Your task to perform on an android device: Search for seafood restaurants on Google Maps Image 0: 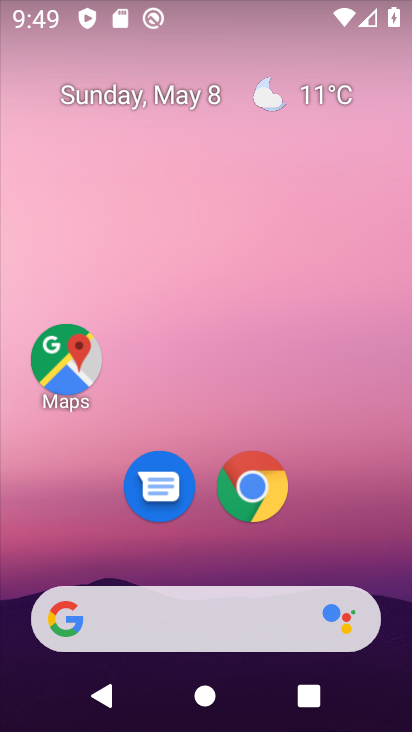
Step 0: drag from (313, 551) to (362, 19)
Your task to perform on an android device: Search for seafood restaurants on Google Maps Image 1: 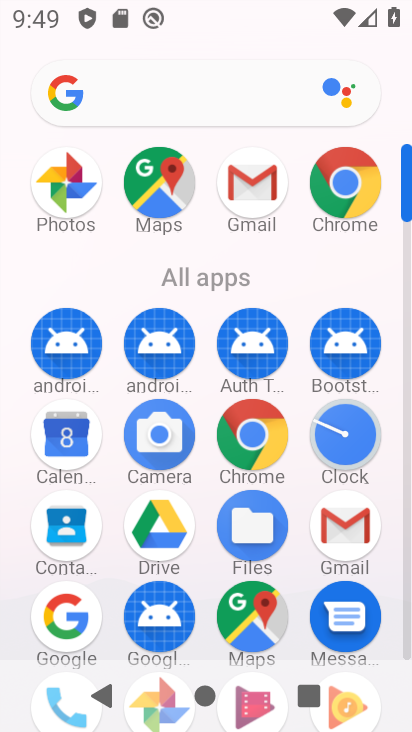
Step 1: click (148, 192)
Your task to perform on an android device: Search for seafood restaurants on Google Maps Image 2: 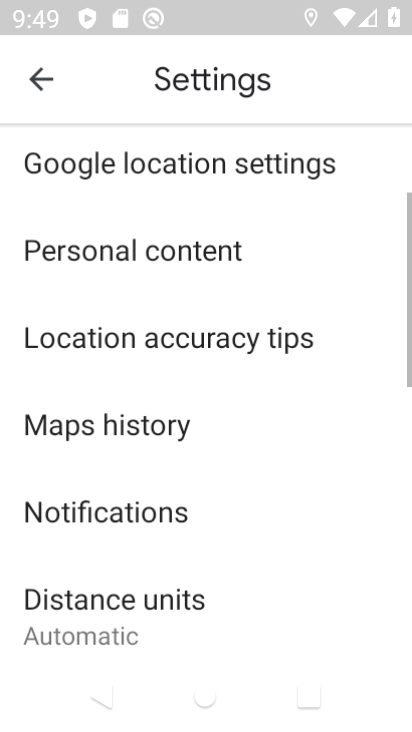
Step 2: click (49, 85)
Your task to perform on an android device: Search for seafood restaurants on Google Maps Image 3: 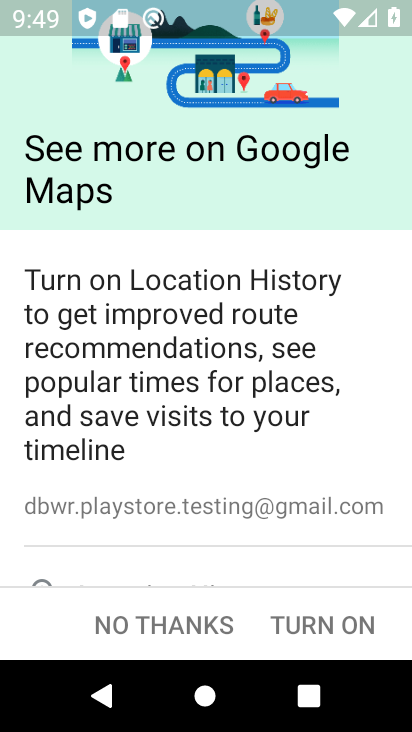
Step 3: drag from (235, 547) to (282, 271)
Your task to perform on an android device: Search for seafood restaurants on Google Maps Image 4: 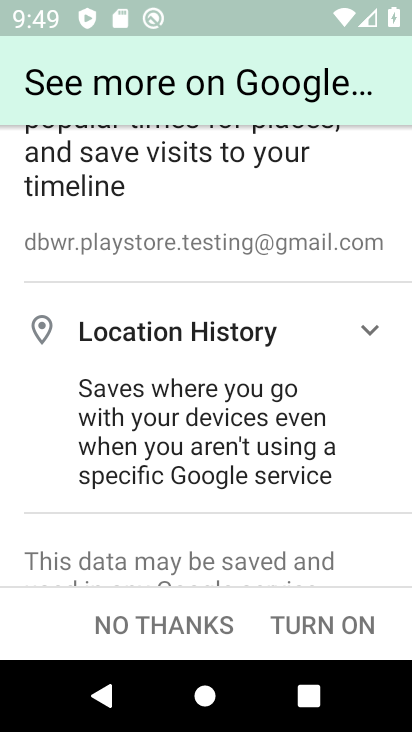
Step 4: click (139, 629)
Your task to perform on an android device: Search for seafood restaurants on Google Maps Image 5: 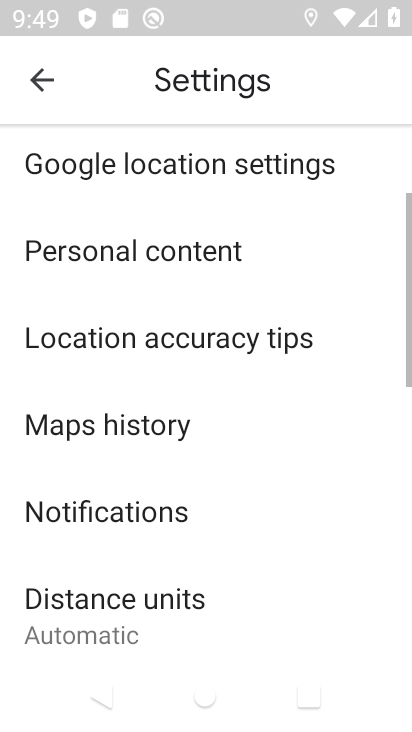
Step 5: click (57, 87)
Your task to perform on an android device: Search for seafood restaurants on Google Maps Image 6: 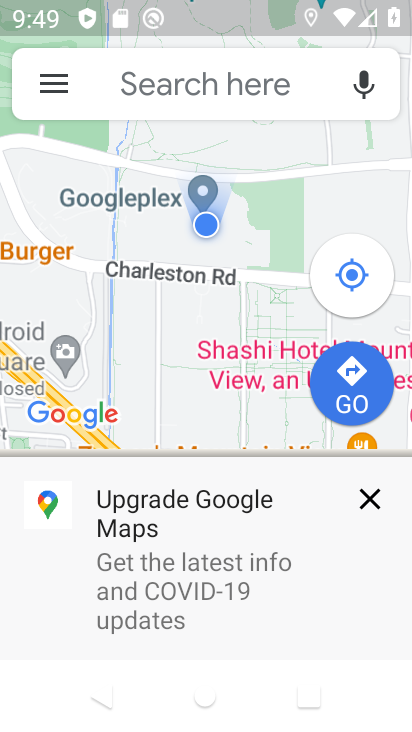
Step 6: click (157, 93)
Your task to perform on an android device: Search for seafood restaurants on Google Maps Image 7: 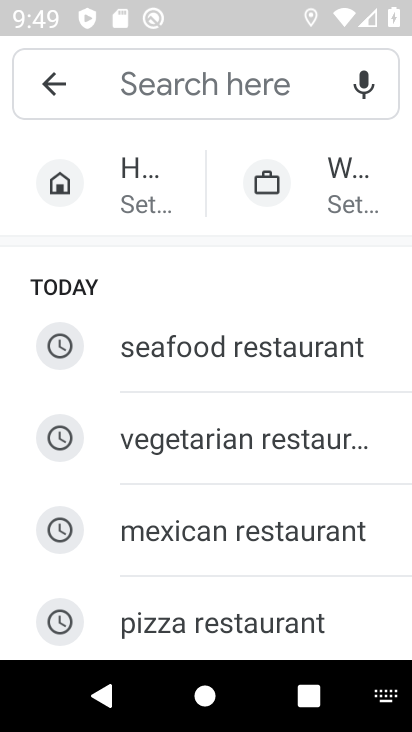
Step 7: type "seafood restaurants"
Your task to perform on an android device: Search for seafood restaurants on Google Maps Image 8: 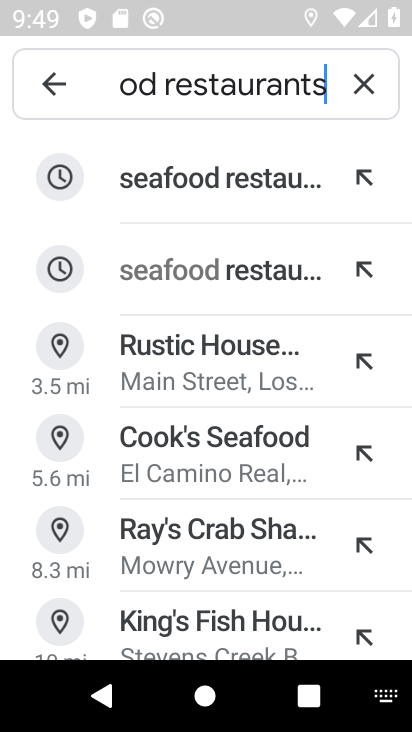
Step 8: click (187, 202)
Your task to perform on an android device: Search for seafood restaurants on Google Maps Image 9: 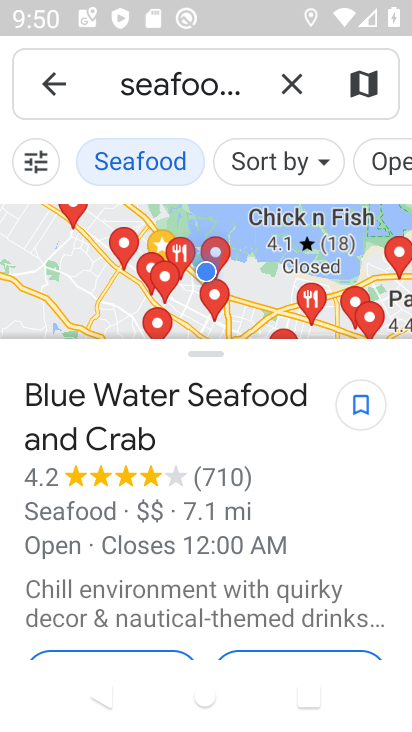
Step 9: task complete